Your task to perform on an android device: Search for the best selling jewelry on Etsy. Image 0: 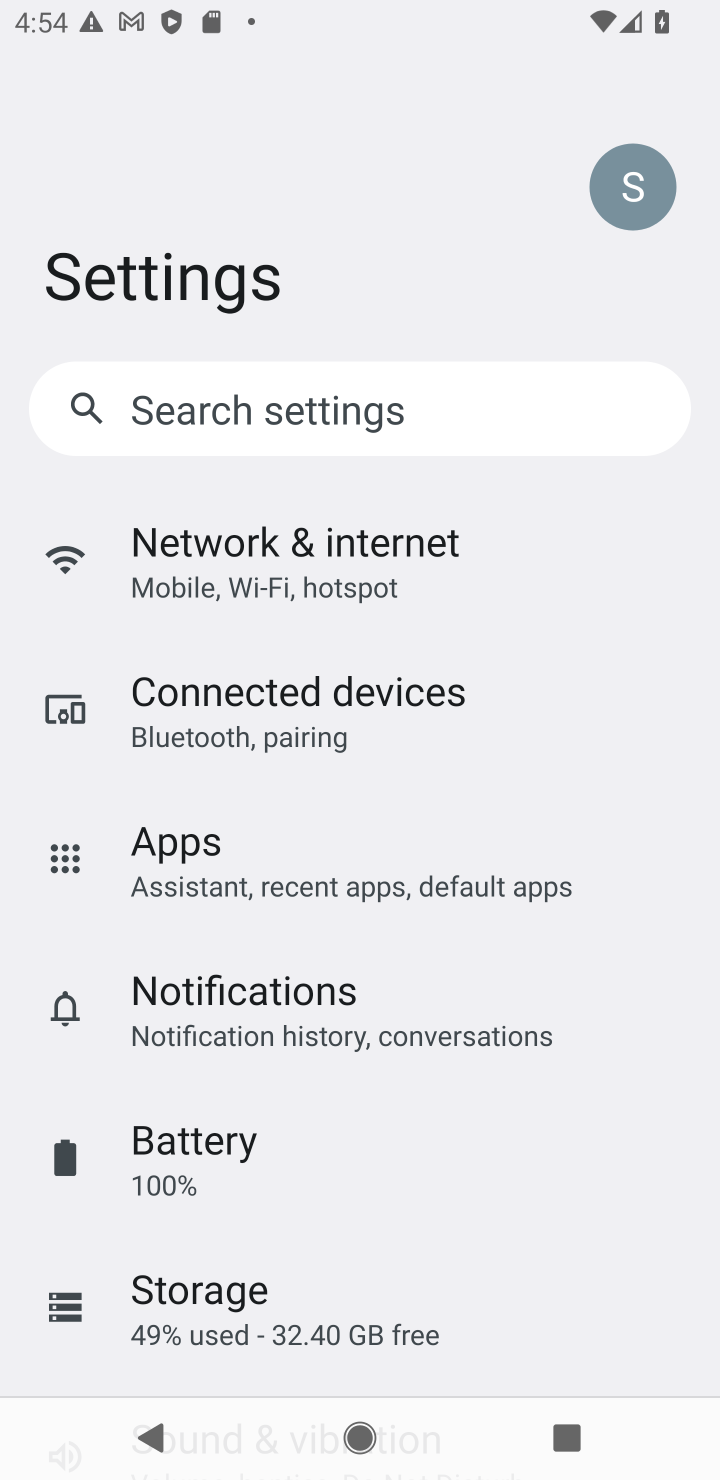
Step 0: press home button
Your task to perform on an android device: Search for the best selling jewelry on Etsy. Image 1: 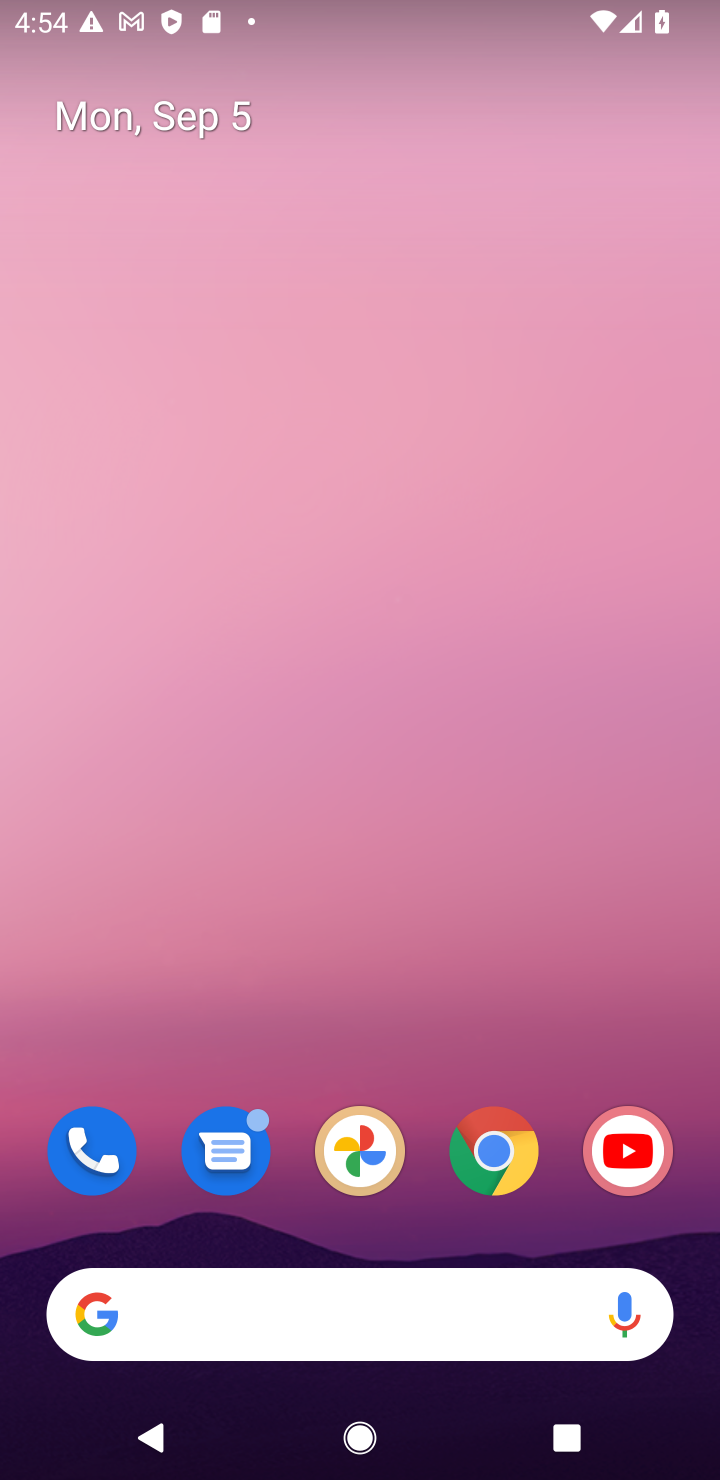
Step 1: click (501, 1149)
Your task to perform on an android device: Search for the best selling jewelry on Etsy. Image 2: 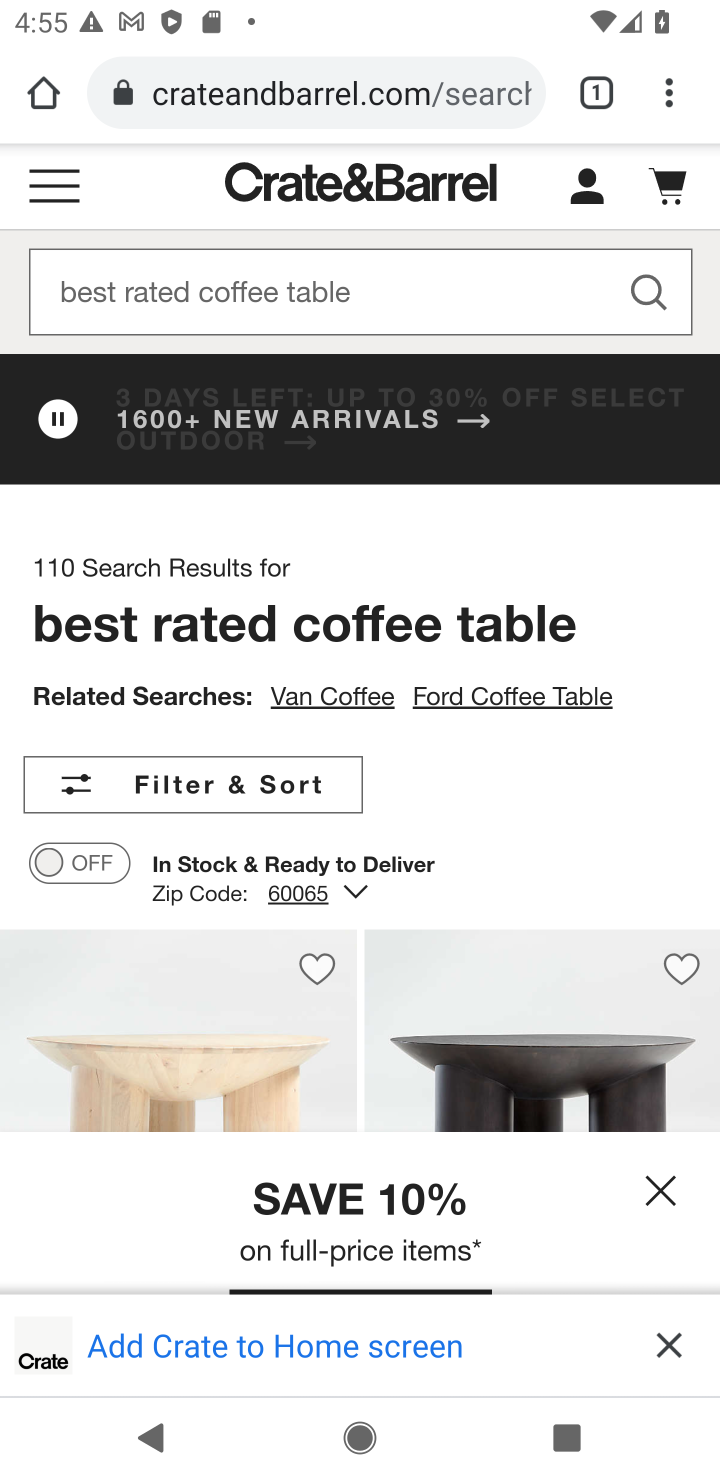
Step 2: click (481, 98)
Your task to perform on an android device: Search for the best selling jewelry on Etsy. Image 3: 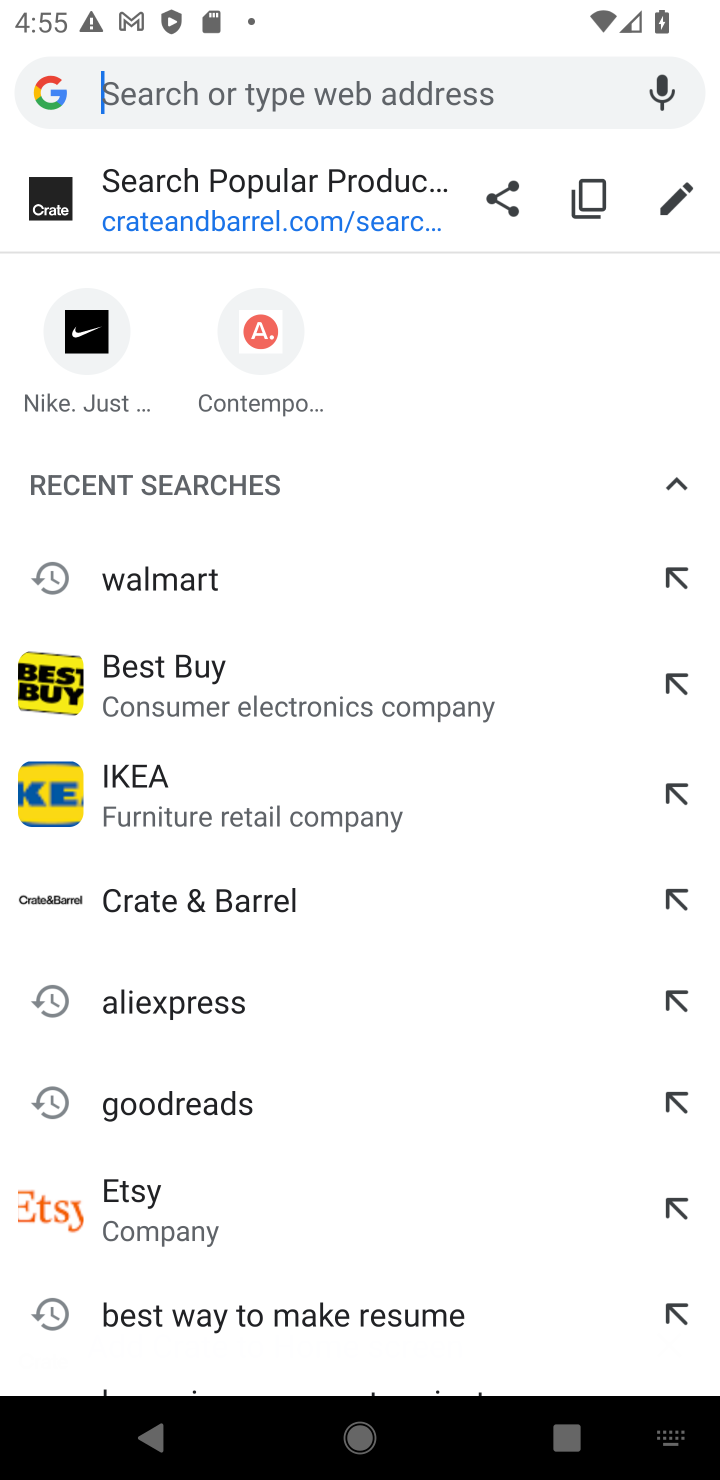
Step 3: type "etsy"
Your task to perform on an android device: Search for the best selling jewelry on Etsy. Image 4: 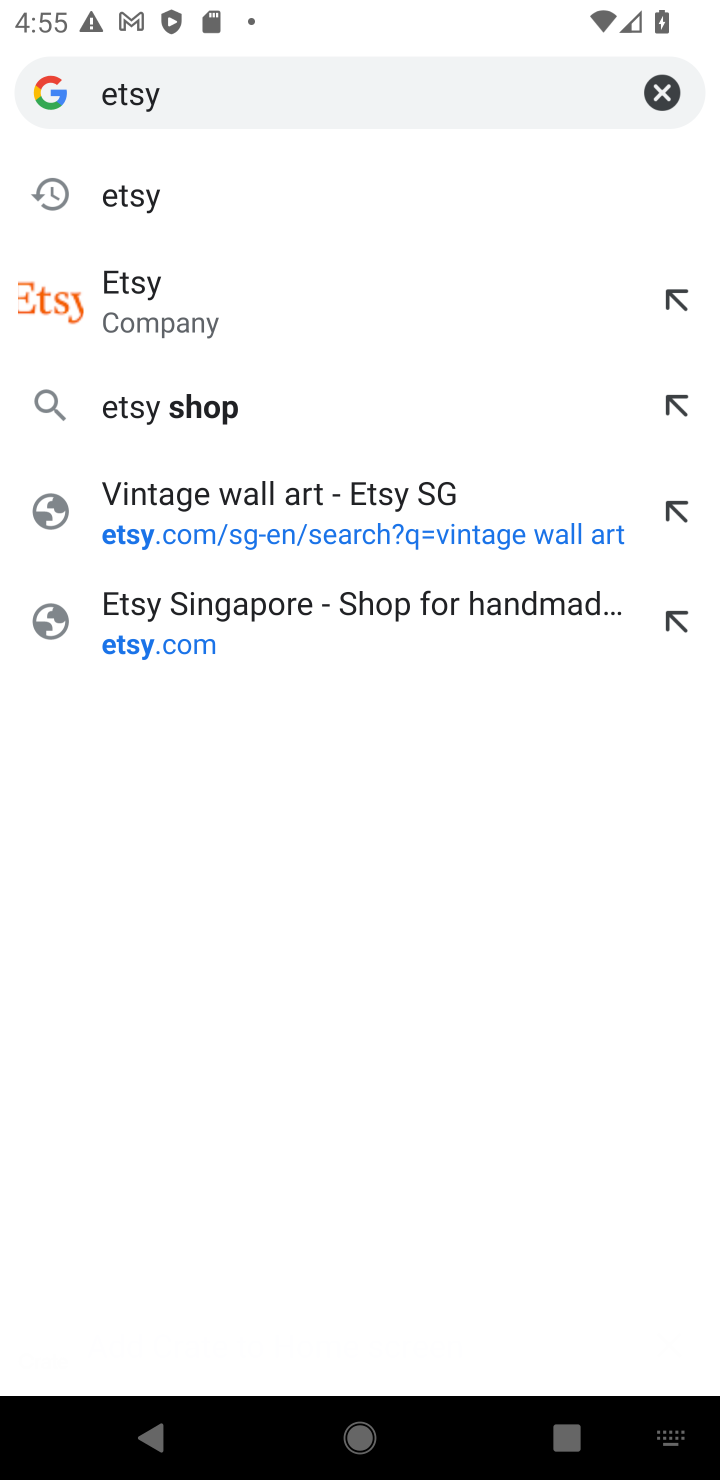
Step 4: click (459, 276)
Your task to perform on an android device: Search for the best selling jewelry on Etsy. Image 5: 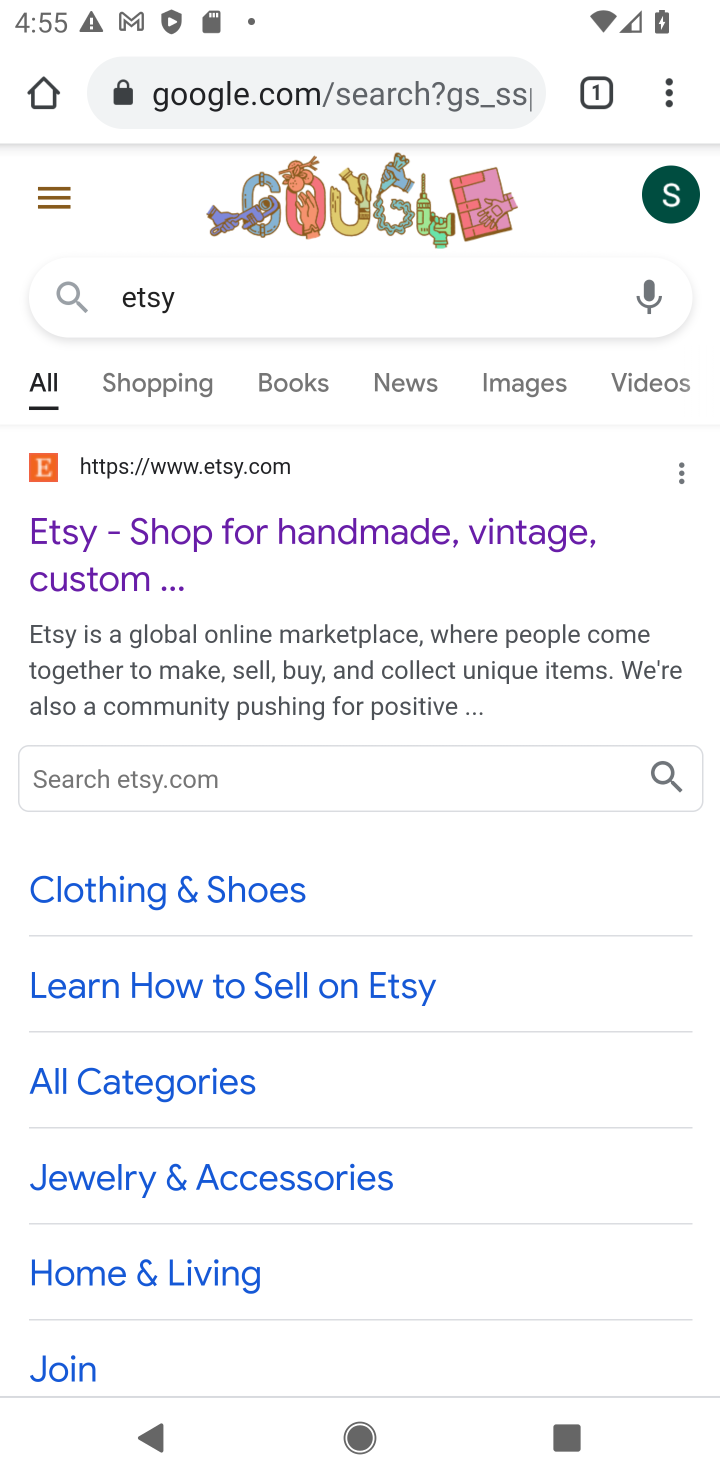
Step 5: click (329, 520)
Your task to perform on an android device: Search for the best selling jewelry on Etsy. Image 6: 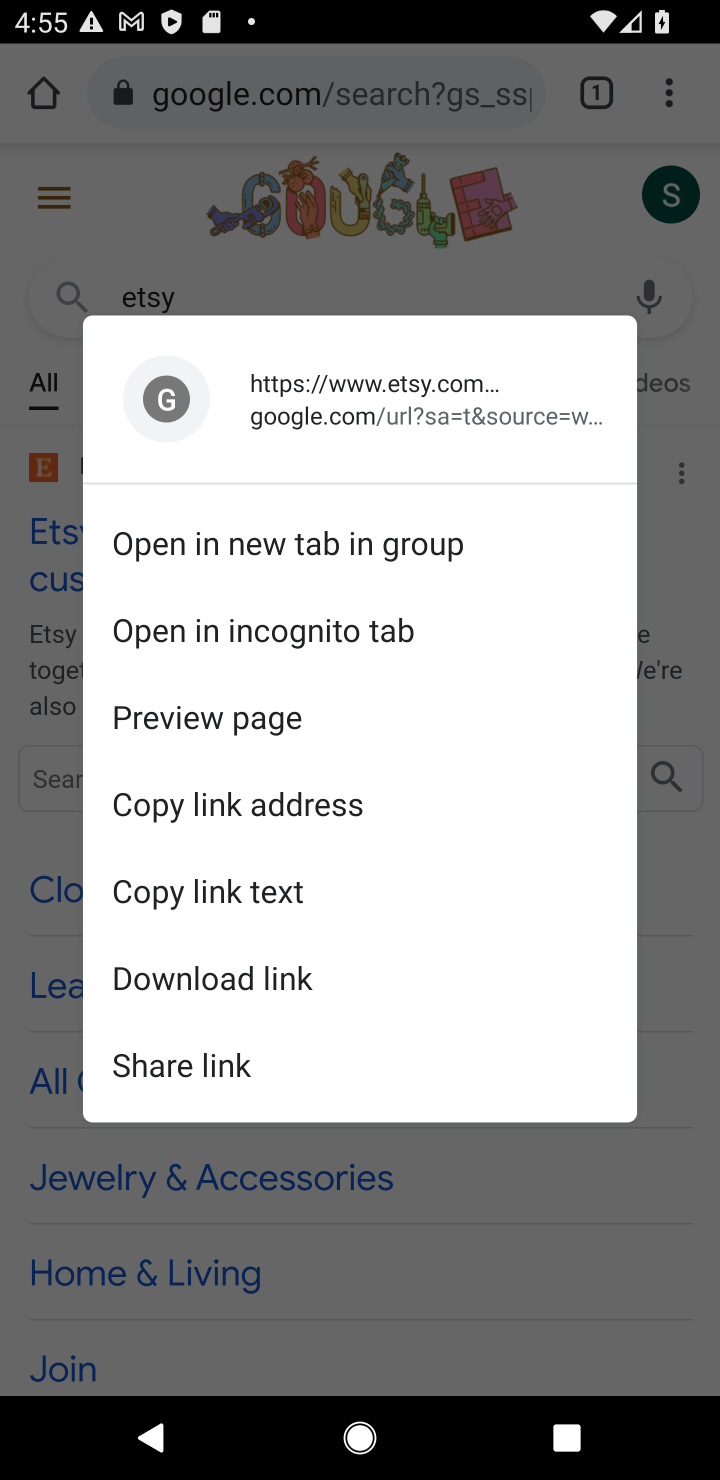
Step 6: click (286, 1178)
Your task to perform on an android device: Search for the best selling jewelry on Etsy. Image 7: 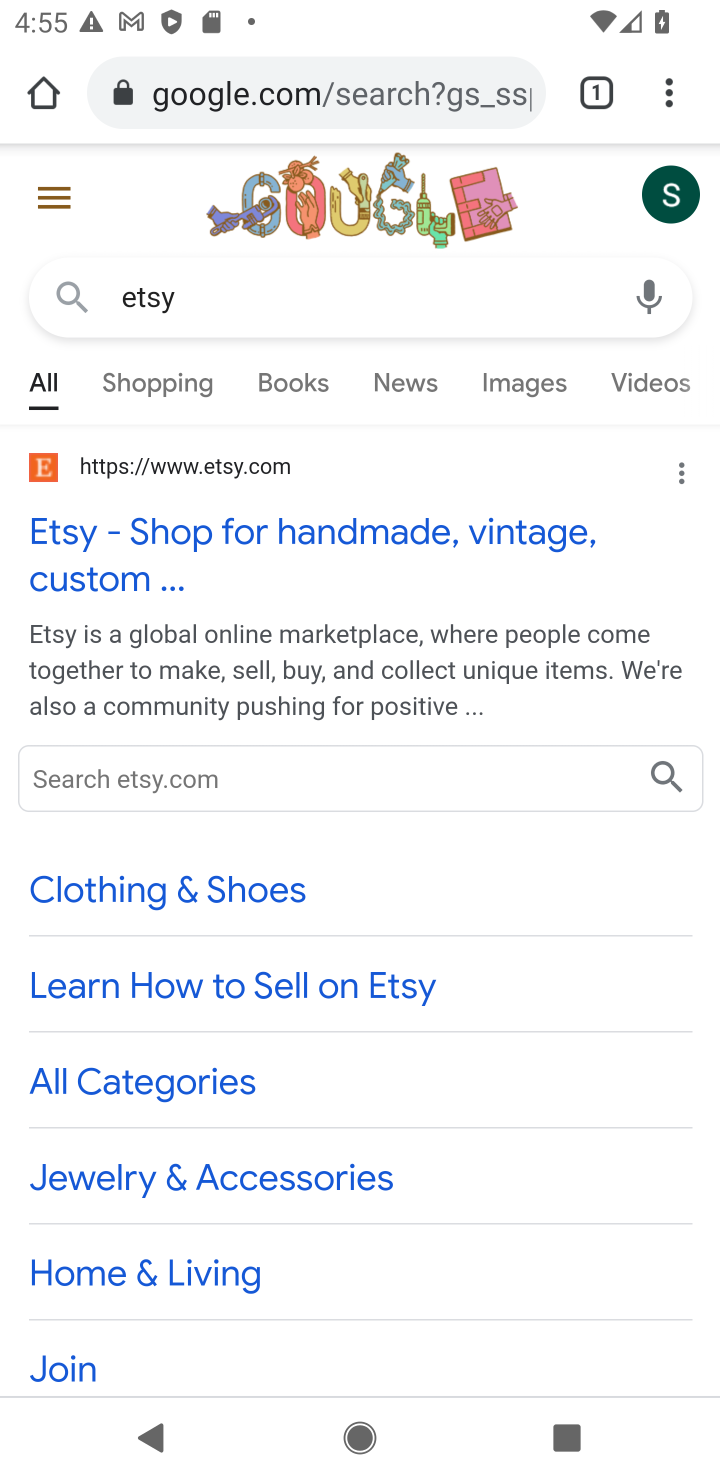
Step 7: click (415, 541)
Your task to perform on an android device: Search for the best selling jewelry on Etsy. Image 8: 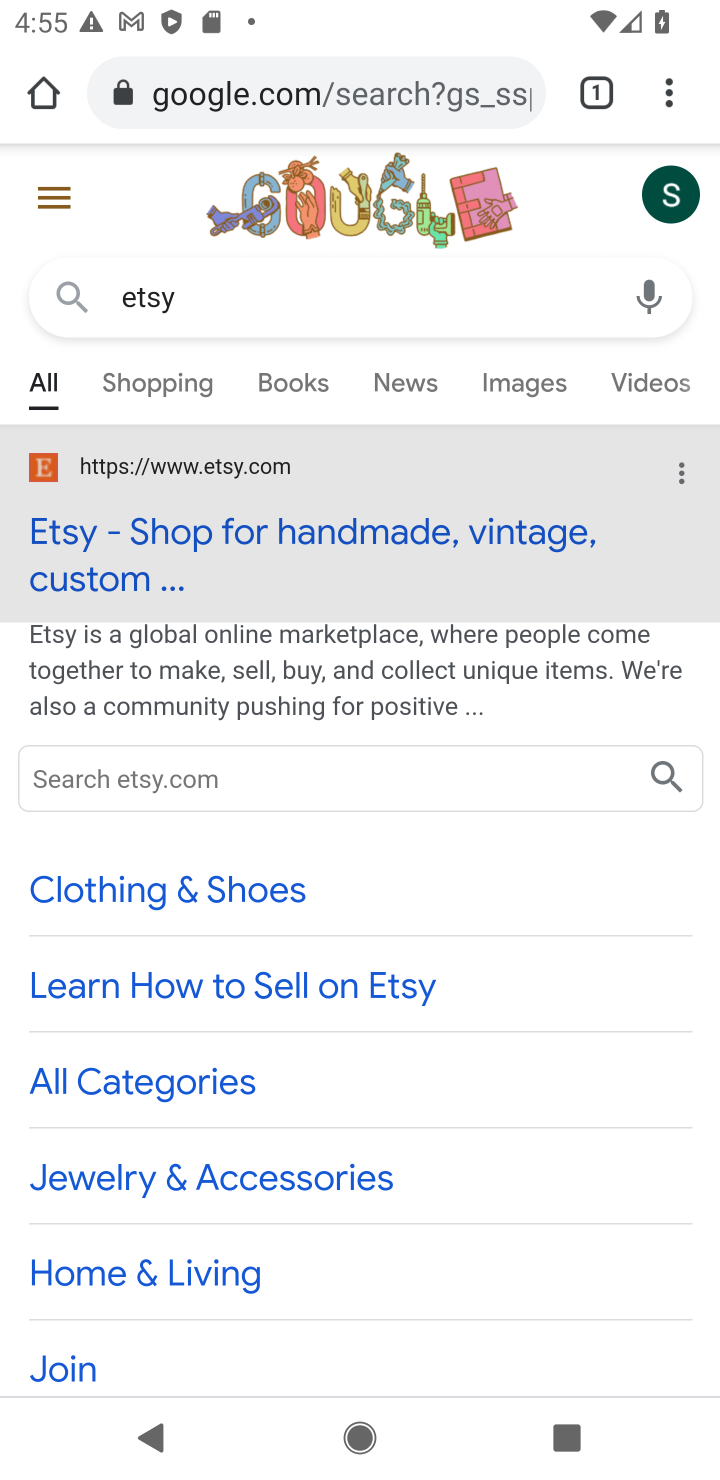
Step 8: click (409, 541)
Your task to perform on an android device: Search for the best selling jewelry on Etsy. Image 9: 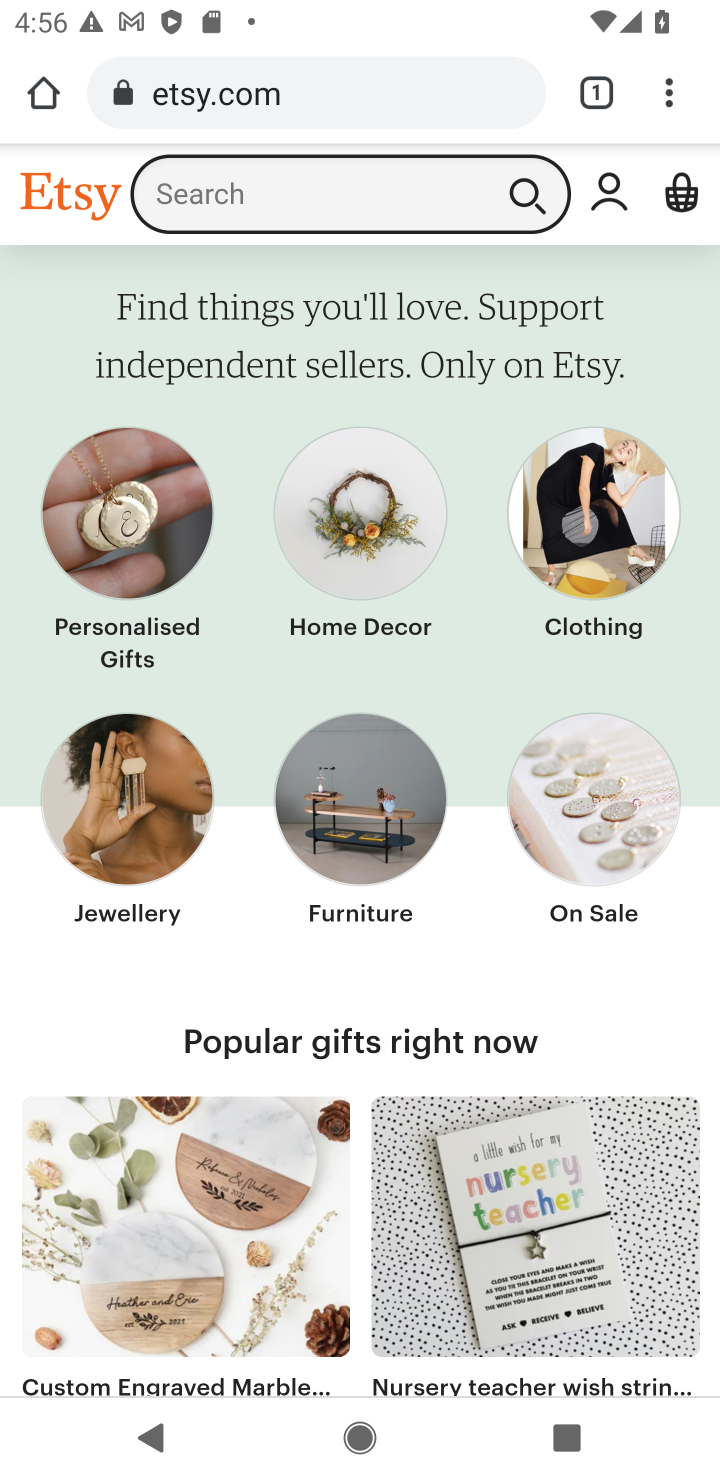
Step 9: click (444, 182)
Your task to perform on an android device: Search for the best selling jewelry on Etsy. Image 10: 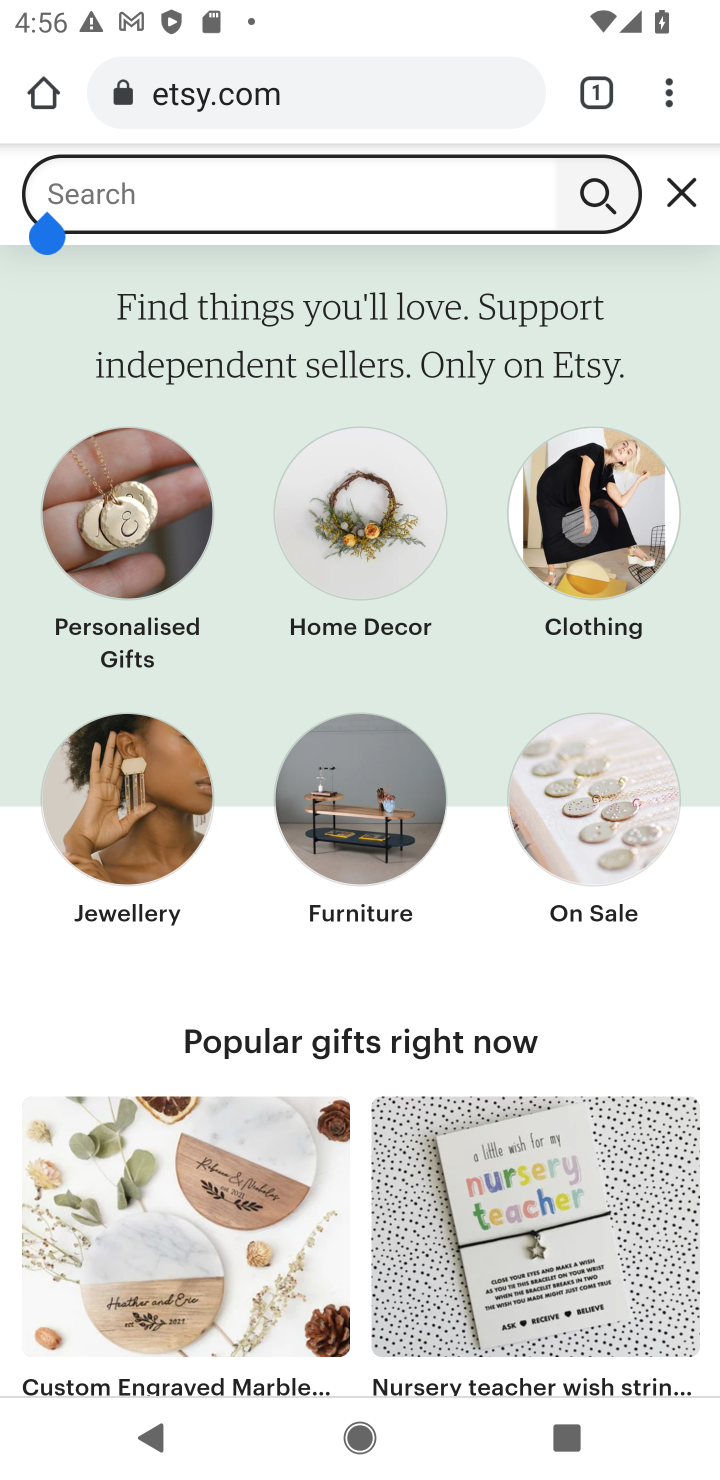
Step 10: type "best selling "
Your task to perform on an android device: Search for the best selling jewelry on Etsy. Image 11: 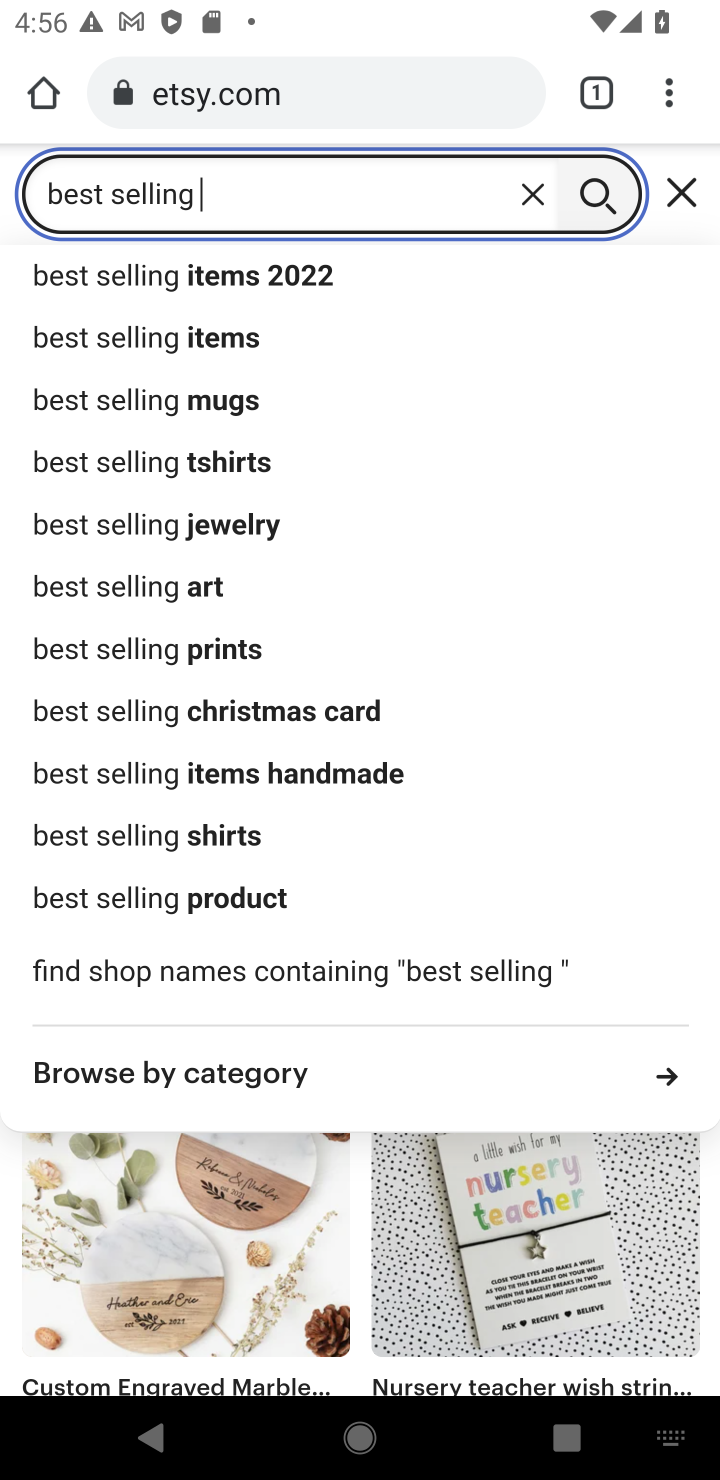
Step 11: type "jewelry"
Your task to perform on an android device: Search for the best selling jewelry on Etsy. Image 12: 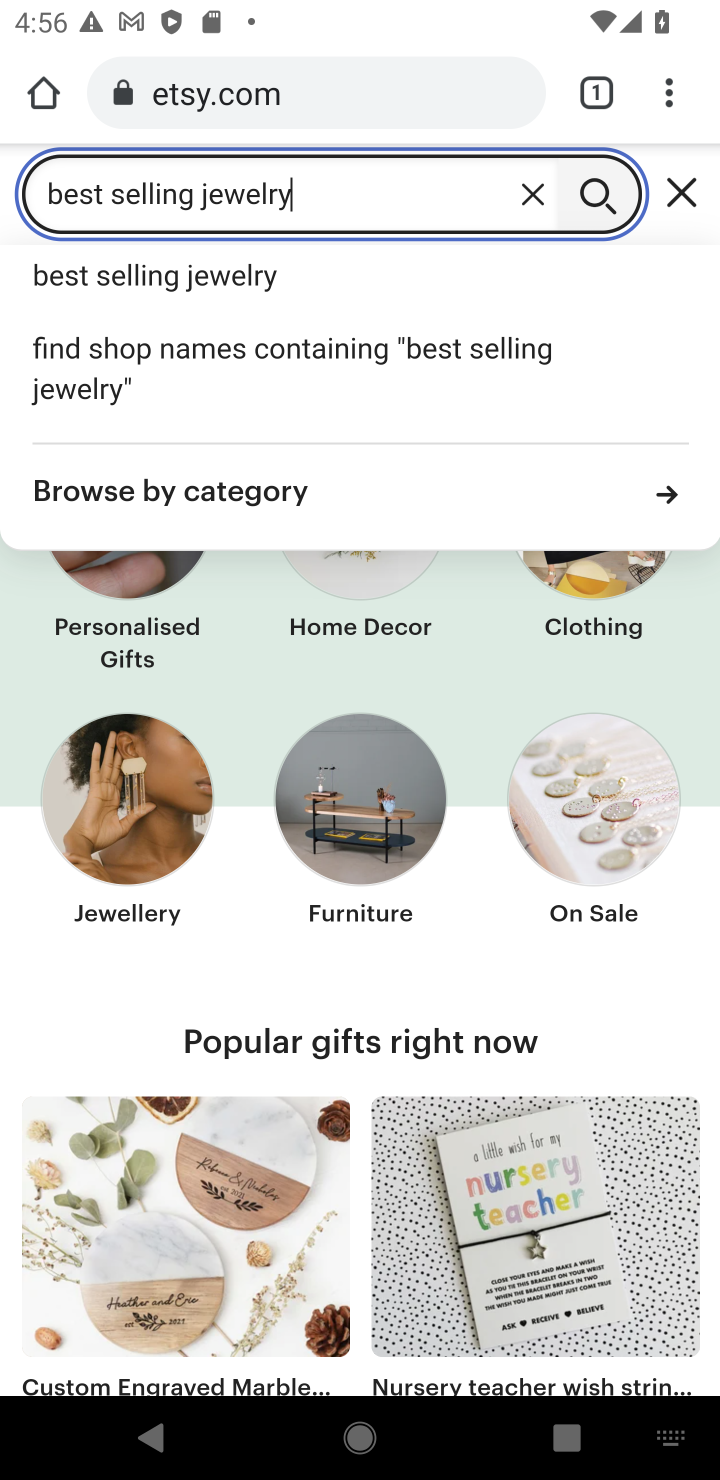
Step 12: click (331, 261)
Your task to perform on an android device: Search for the best selling jewelry on Etsy. Image 13: 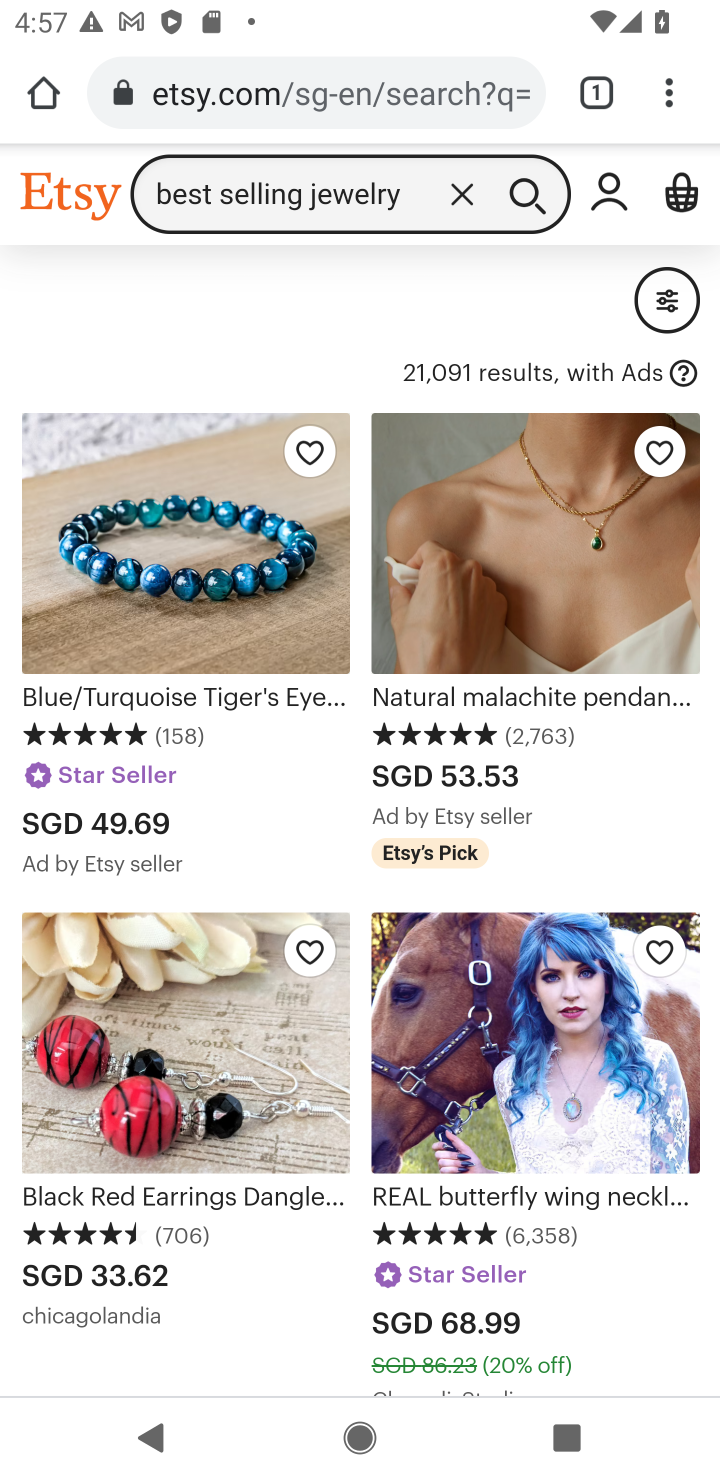
Step 13: task complete